Your task to perform on an android device: Open wifi settings Image 0: 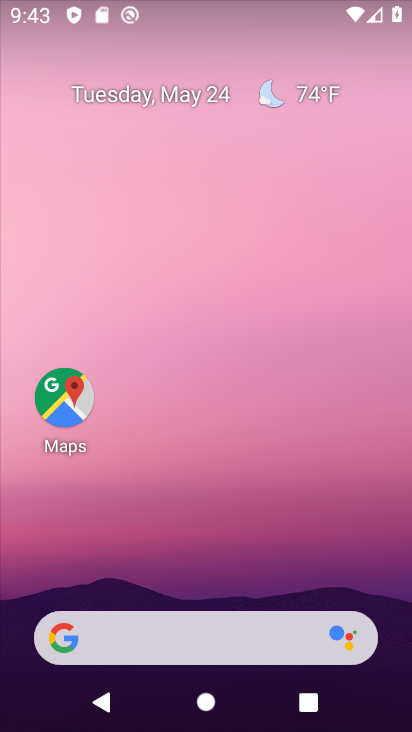
Step 0: drag from (204, 579) to (162, 36)
Your task to perform on an android device: Open wifi settings Image 1: 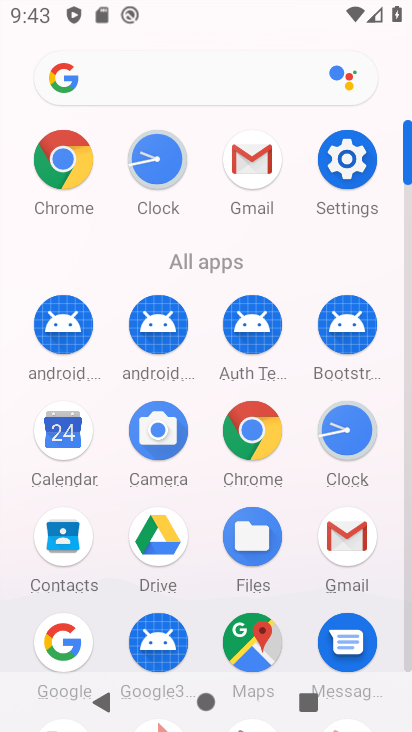
Step 1: click (346, 187)
Your task to perform on an android device: Open wifi settings Image 2: 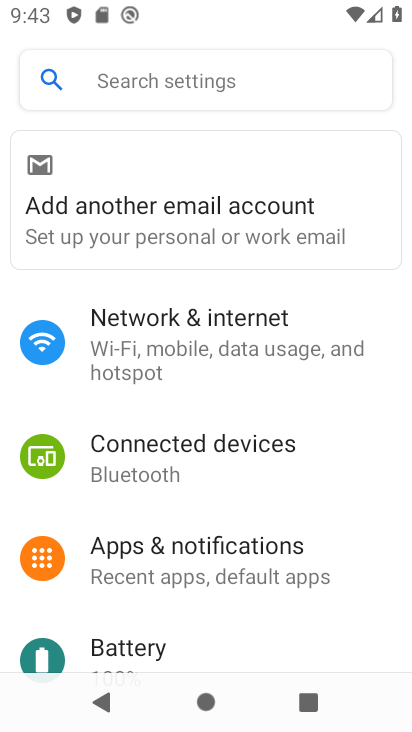
Step 2: click (147, 377)
Your task to perform on an android device: Open wifi settings Image 3: 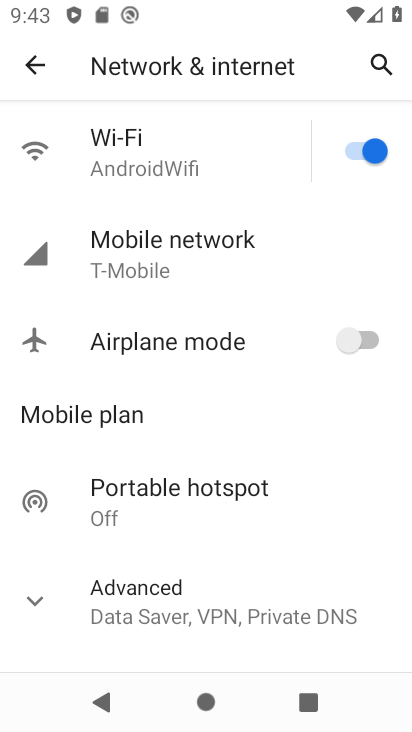
Step 3: click (174, 116)
Your task to perform on an android device: Open wifi settings Image 4: 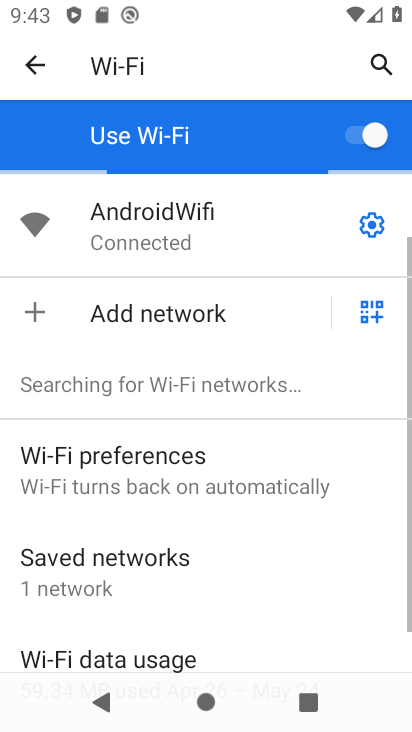
Step 4: task complete